Your task to perform on an android device: allow cookies in the chrome app Image 0: 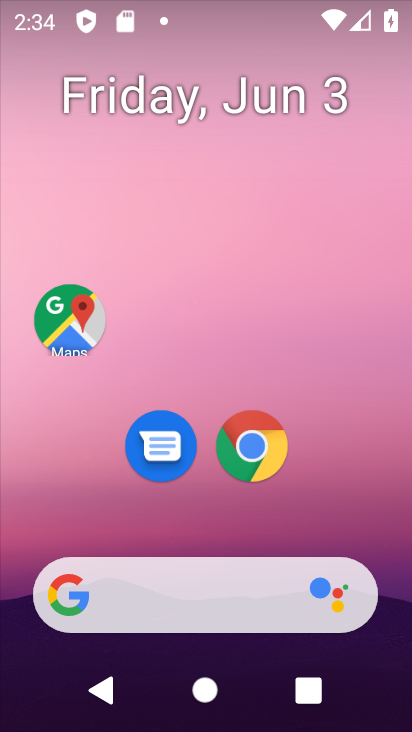
Step 0: task complete